Your task to perform on an android device: move a message to another label in the gmail app Image 0: 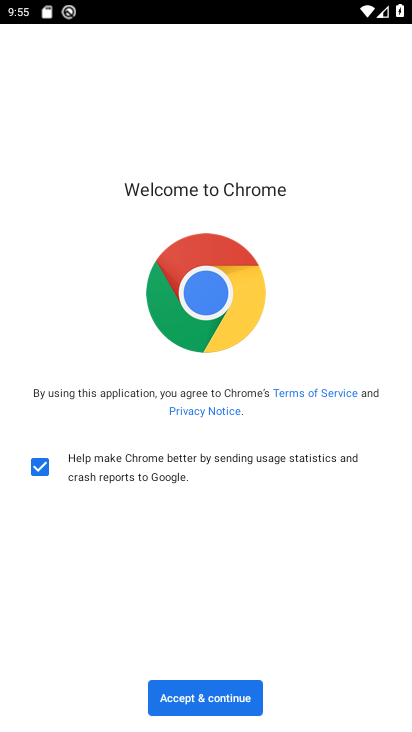
Step 0: press home button
Your task to perform on an android device: move a message to another label in the gmail app Image 1: 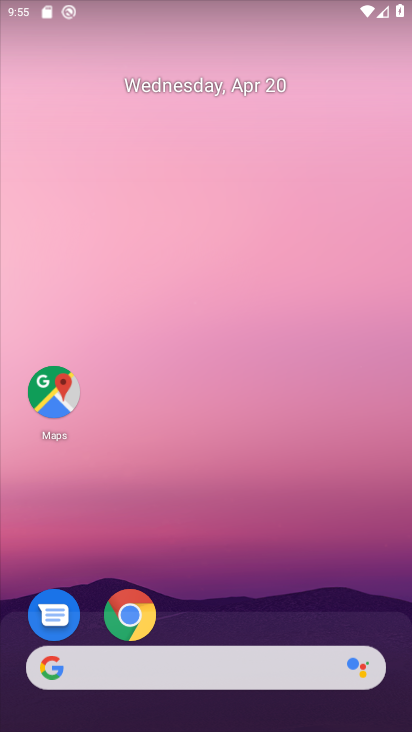
Step 1: drag from (298, 614) to (312, 133)
Your task to perform on an android device: move a message to another label in the gmail app Image 2: 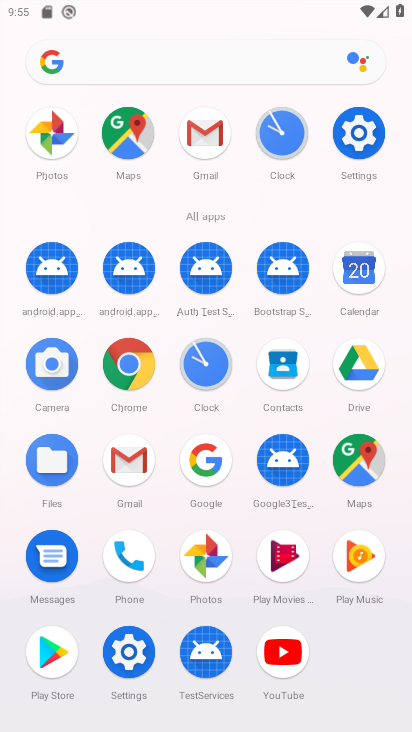
Step 2: click (114, 467)
Your task to perform on an android device: move a message to another label in the gmail app Image 3: 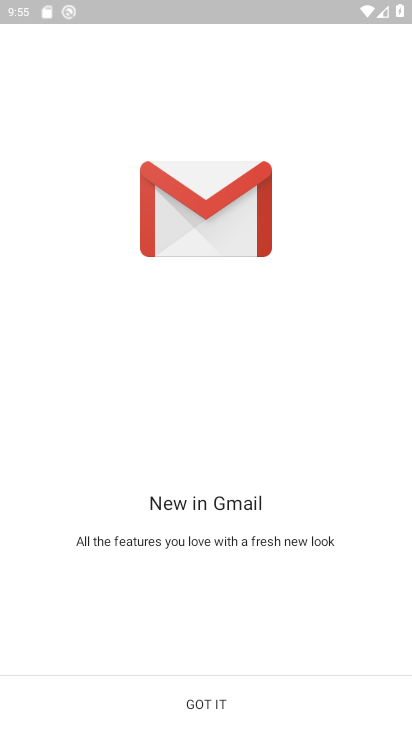
Step 3: click (216, 708)
Your task to perform on an android device: move a message to another label in the gmail app Image 4: 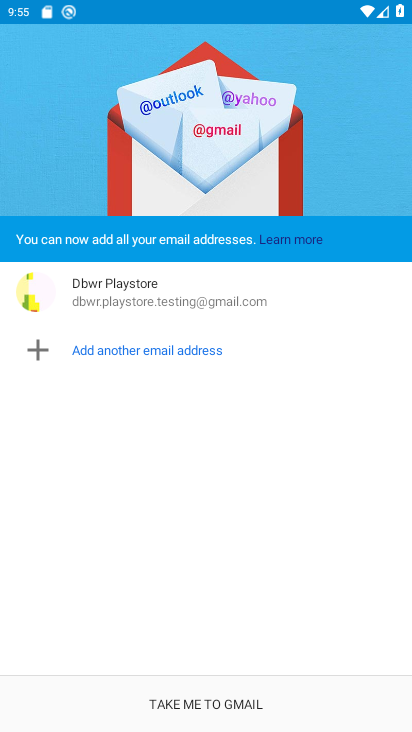
Step 4: click (236, 709)
Your task to perform on an android device: move a message to another label in the gmail app Image 5: 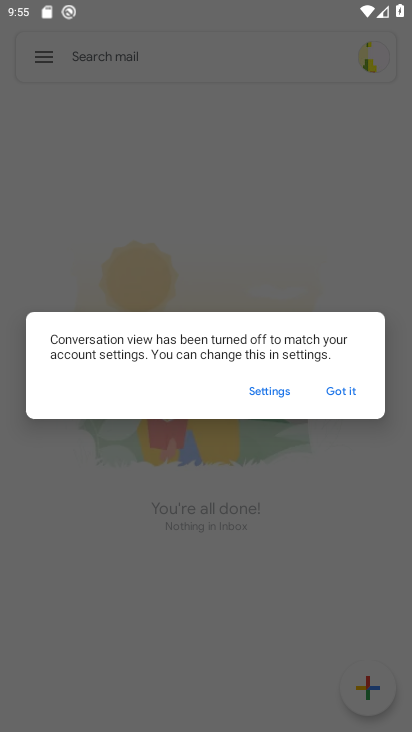
Step 5: click (342, 393)
Your task to perform on an android device: move a message to another label in the gmail app Image 6: 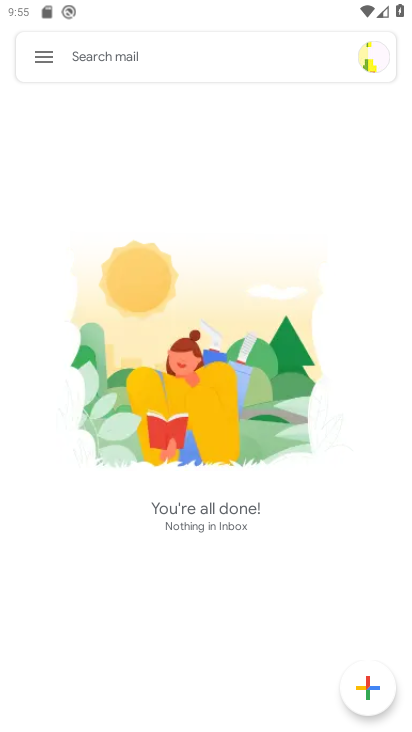
Step 6: click (49, 60)
Your task to perform on an android device: move a message to another label in the gmail app Image 7: 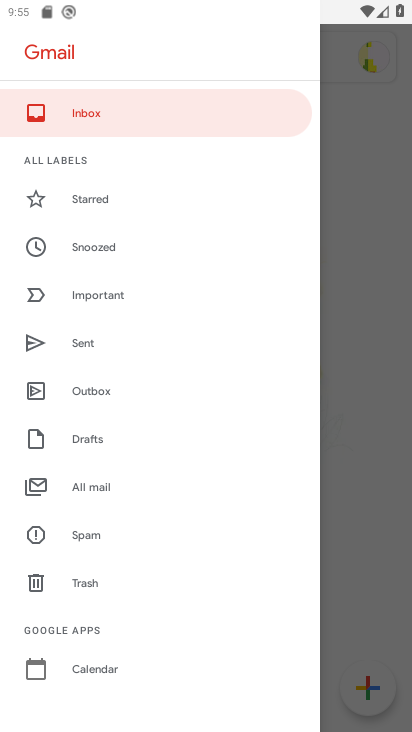
Step 7: click (112, 485)
Your task to perform on an android device: move a message to another label in the gmail app Image 8: 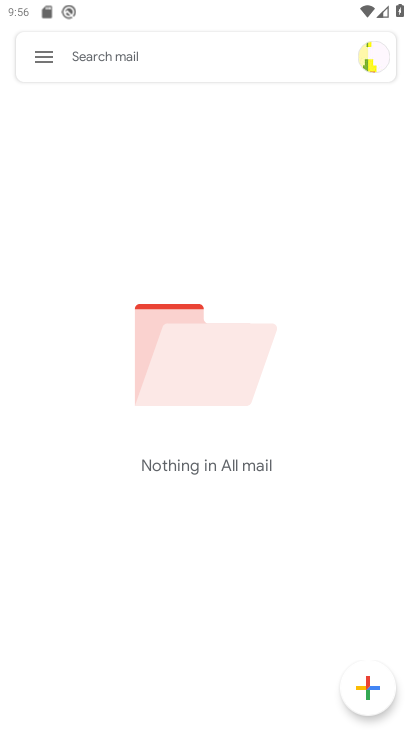
Step 8: task complete